Your task to perform on an android device: see tabs open on other devices in the chrome app Image 0: 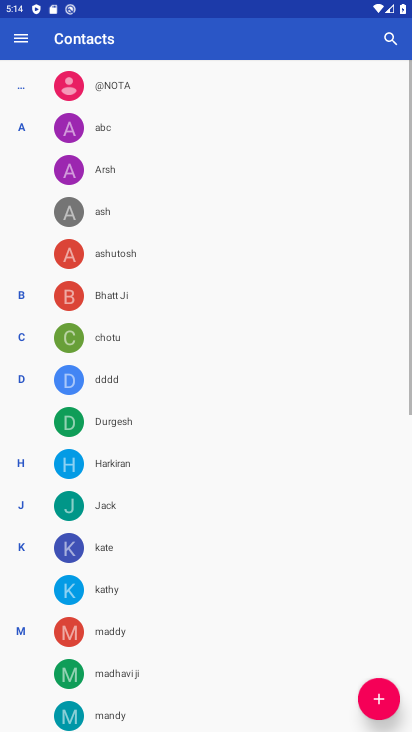
Step 0: press home button
Your task to perform on an android device: see tabs open on other devices in the chrome app Image 1: 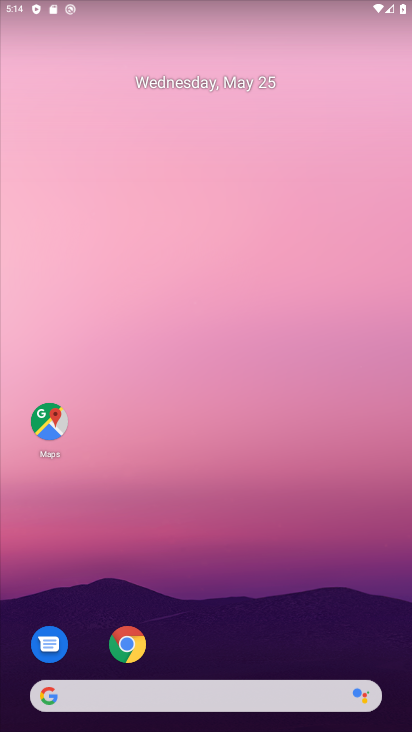
Step 1: drag from (218, 602) to (215, 193)
Your task to perform on an android device: see tabs open on other devices in the chrome app Image 2: 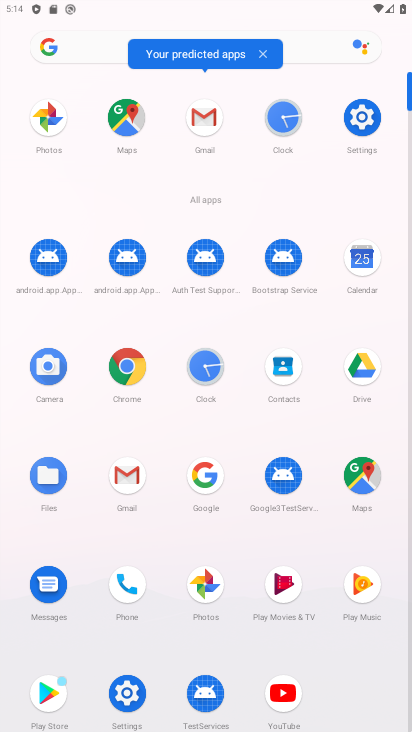
Step 2: drag from (215, 492) to (236, 210)
Your task to perform on an android device: see tabs open on other devices in the chrome app Image 3: 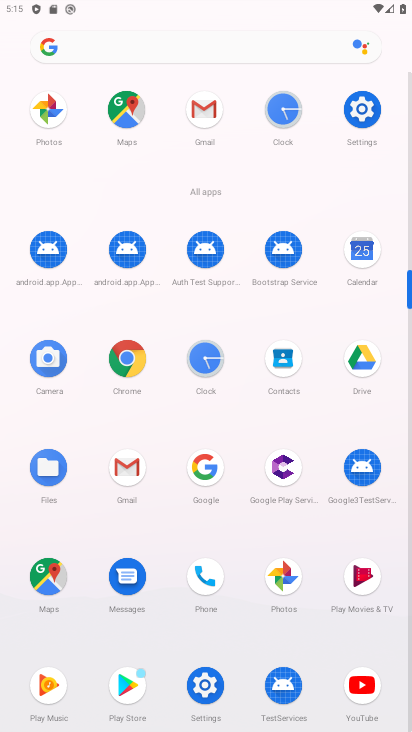
Step 3: click (137, 381)
Your task to perform on an android device: see tabs open on other devices in the chrome app Image 4: 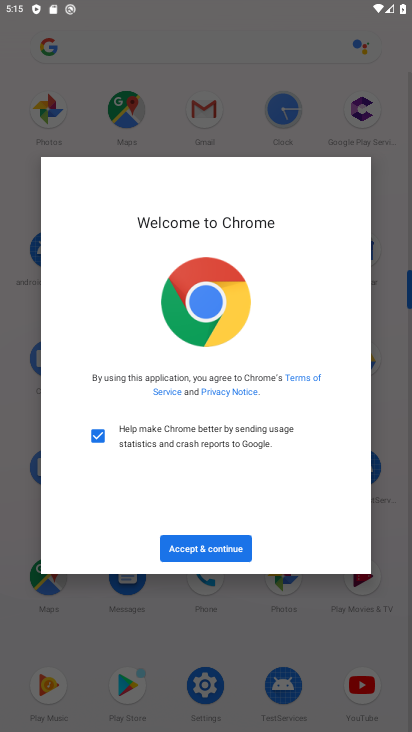
Step 4: click (231, 548)
Your task to perform on an android device: see tabs open on other devices in the chrome app Image 5: 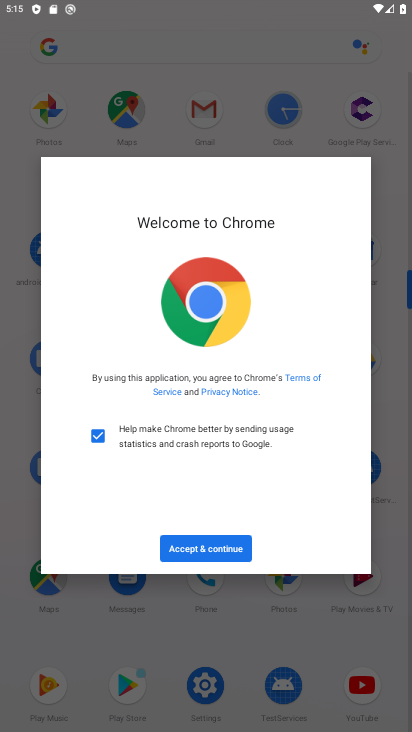
Step 5: click (339, 550)
Your task to perform on an android device: see tabs open on other devices in the chrome app Image 6: 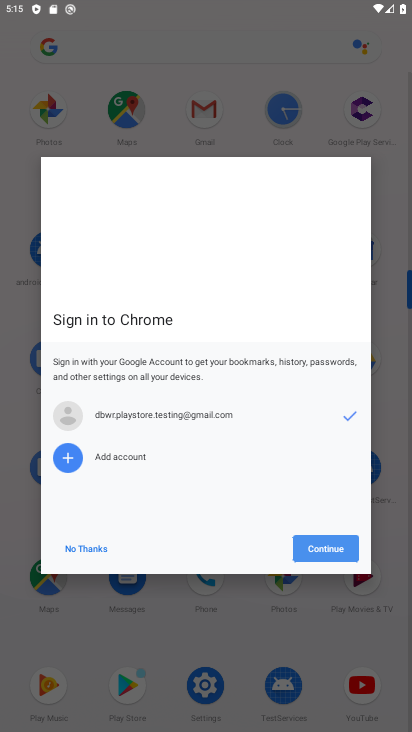
Step 6: click (338, 550)
Your task to perform on an android device: see tabs open on other devices in the chrome app Image 7: 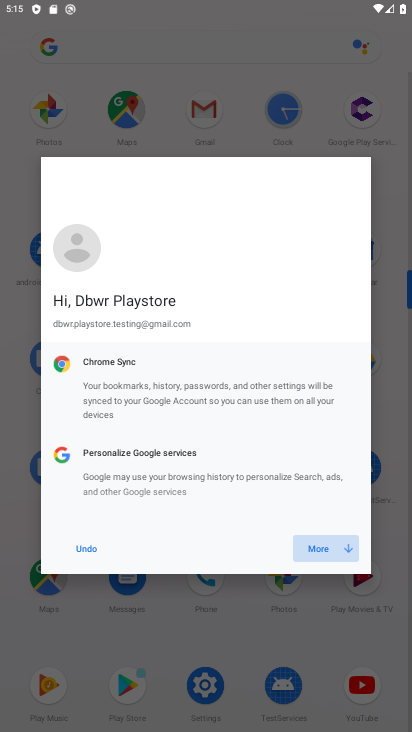
Step 7: click (338, 550)
Your task to perform on an android device: see tabs open on other devices in the chrome app Image 8: 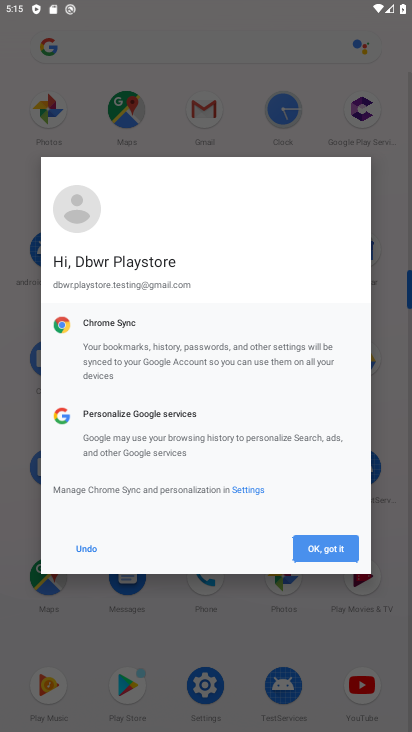
Step 8: click (338, 550)
Your task to perform on an android device: see tabs open on other devices in the chrome app Image 9: 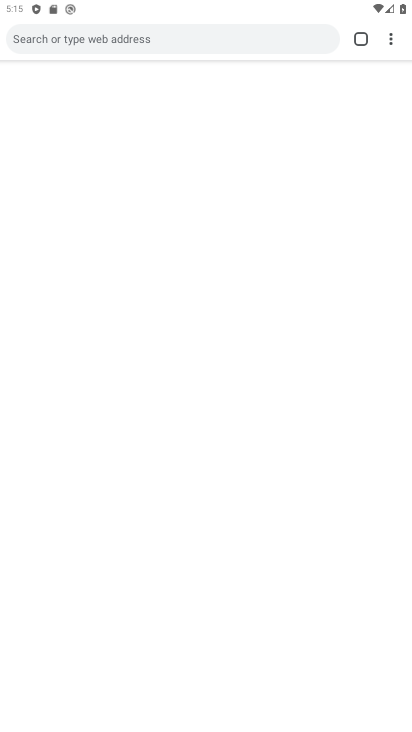
Step 9: click (338, 550)
Your task to perform on an android device: see tabs open on other devices in the chrome app Image 10: 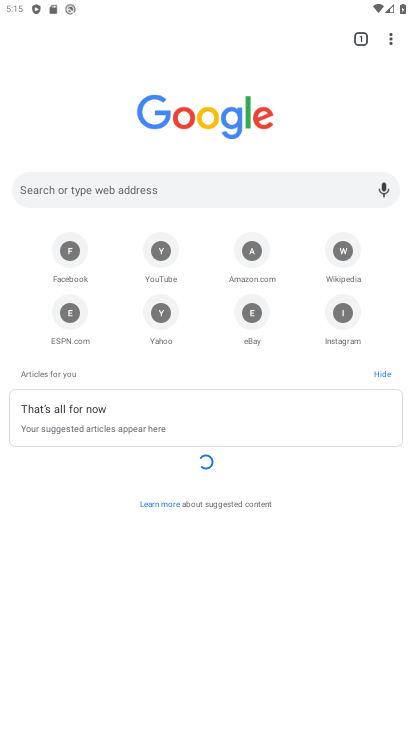
Step 10: task complete